Your task to perform on an android device: Open ESPN.com Image 0: 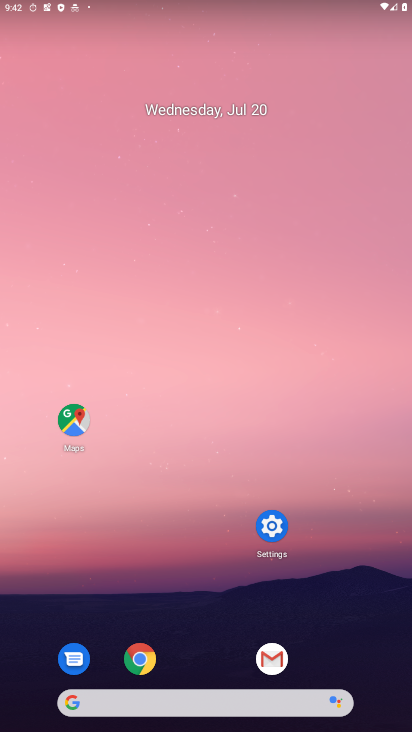
Step 0: press home button
Your task to perform on an android device: Open ESPN.com Image 1: 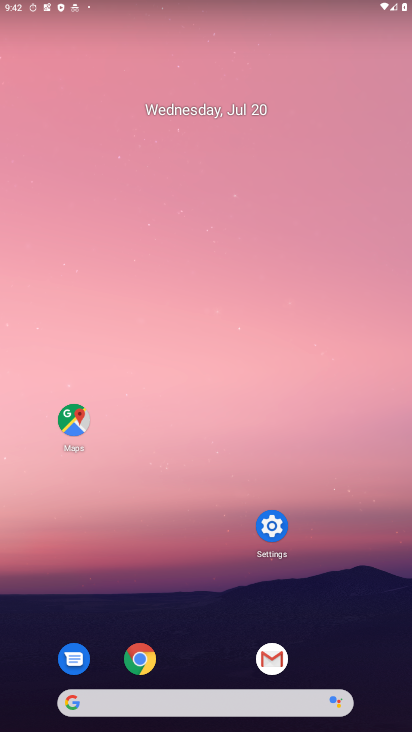
Step 1: click (136, 655)
Your task to perform on an android device: Open ESPN.com Image 2: 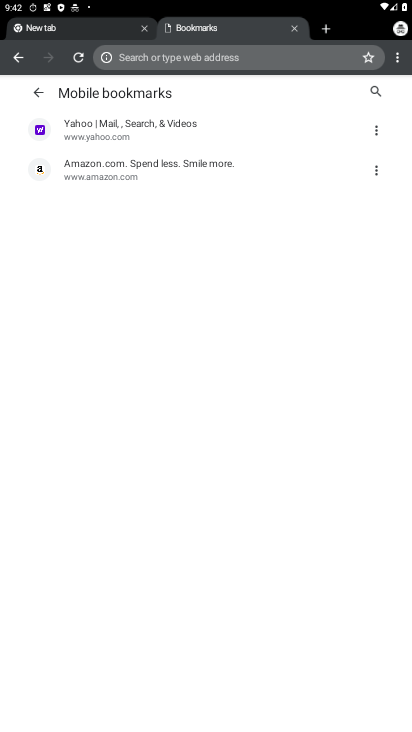
Step 2: click (24, 63)
Your task to perform on an android device: Open ESPN.com Image 3: 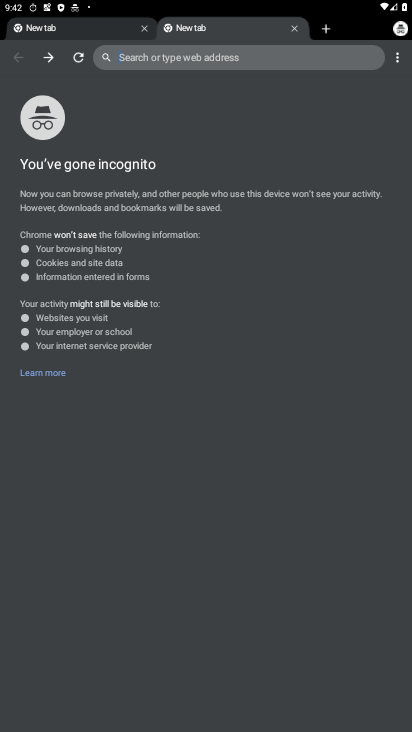
Step 3: click (399, 57)
Your task to perform on an android device: Open ESPN.com Image 4: 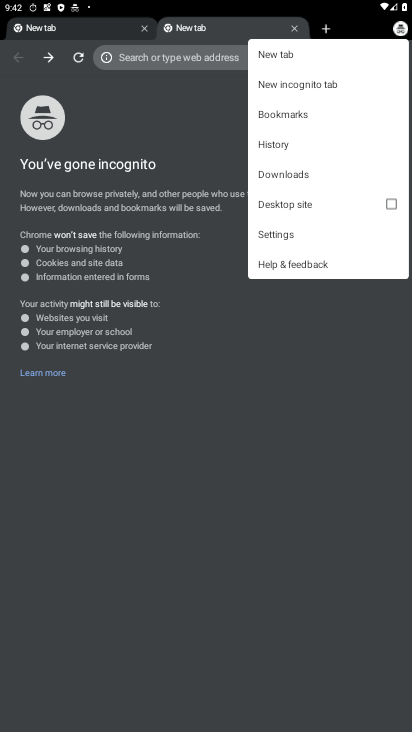
Step 4: click (179, 59)
Your task to perform on an android device: Open ESPN.com Image 5: 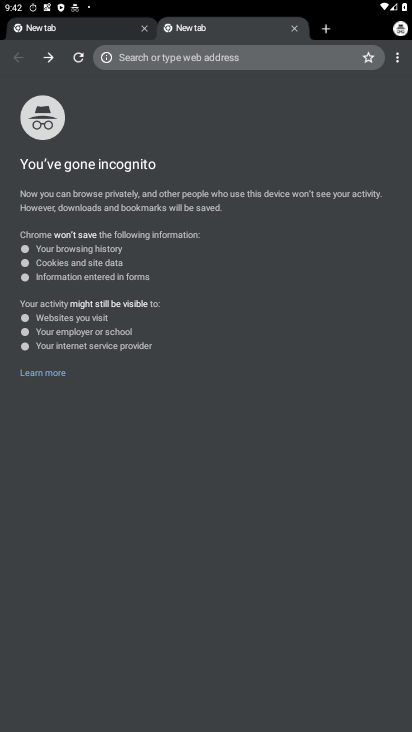
Step 5: click (172, 56)
Your task to perform on an android device: Open ESPN.com Image 6: 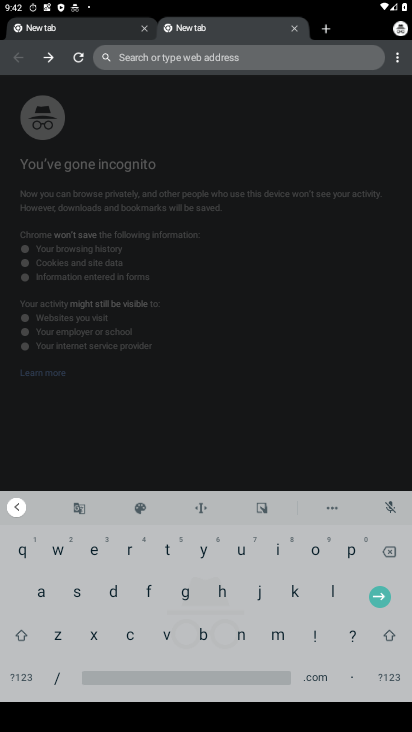
Step 6: click (94, 552)
Your task to perform on an android device: Open ESPN.com Image 7: 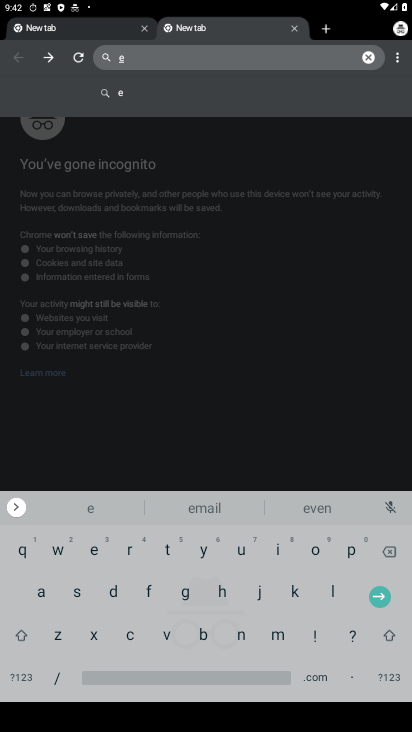
Step 7: click (76, 598)
Your task to perform on an android device: Open ESPN.com Image 8: 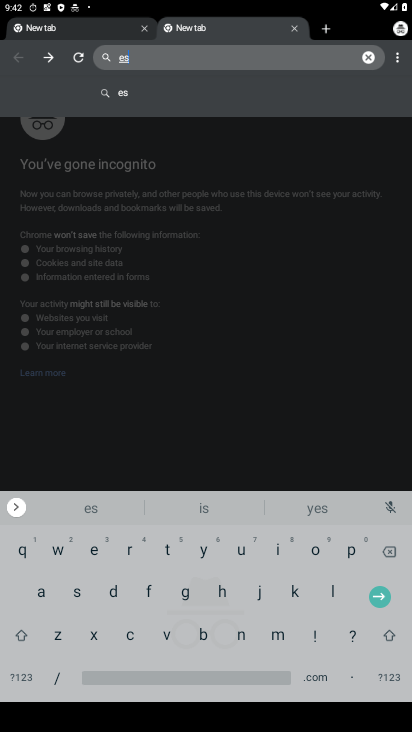
Step 8: click (347, 548)
Your task to perform on an android device: Open ESPN.com Image 9: 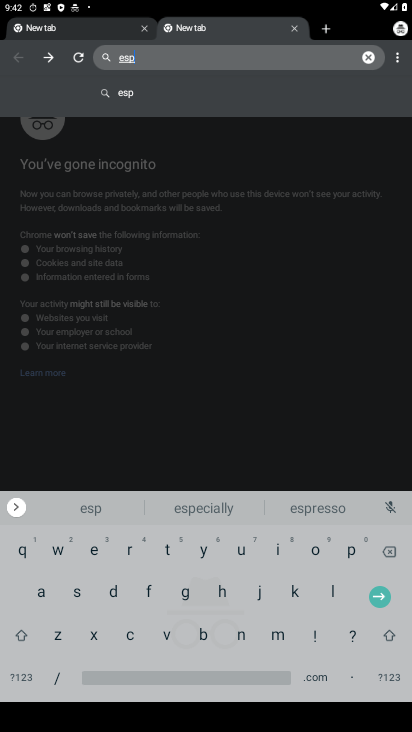
Step 9: click (242, 628)
Your task to perform on an android device: Open ESPN.com Image 10: 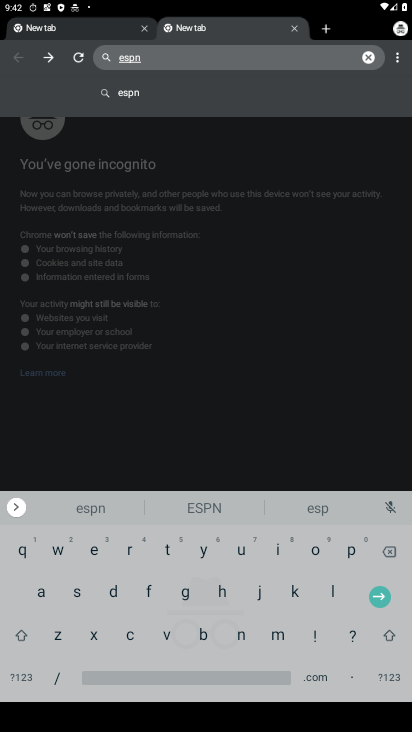
Step 10: click (383, 597)
Your task to perform on an android device: Open ESPN.com Image 11: 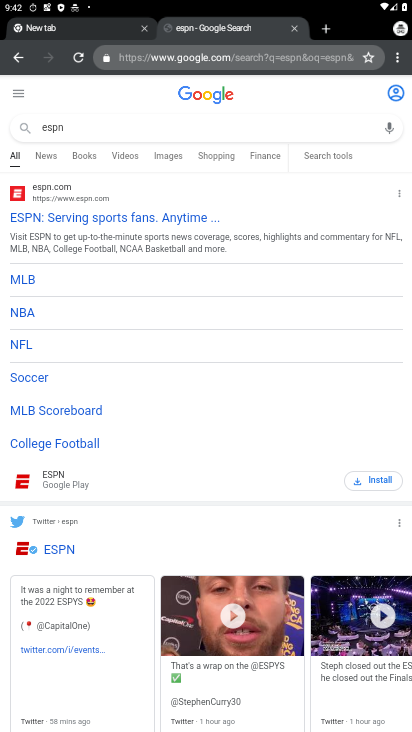
Step 11: click (44, 217)
Your task to perform on an android device: Open ESPN.com Image 12: 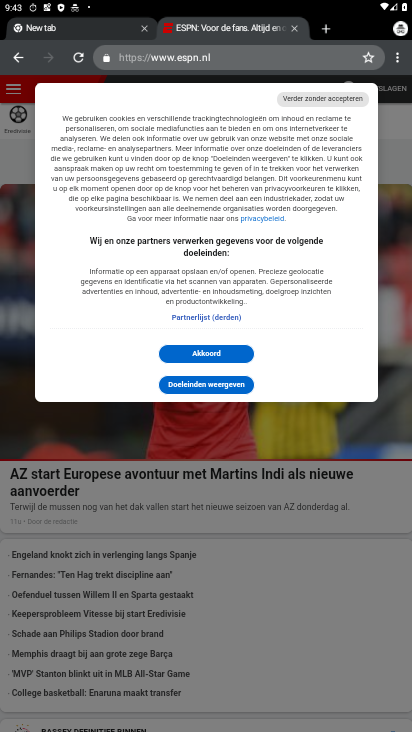
Step 12: click (222, 355)
Your task to perform on an android device: Open ESPN.com Image 13: 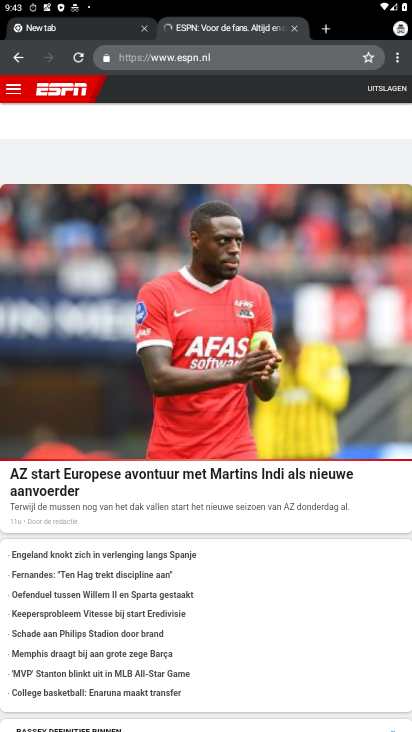
Step 13: task complete